Your task to perform on an android device: open device folders in google photos Image 0: 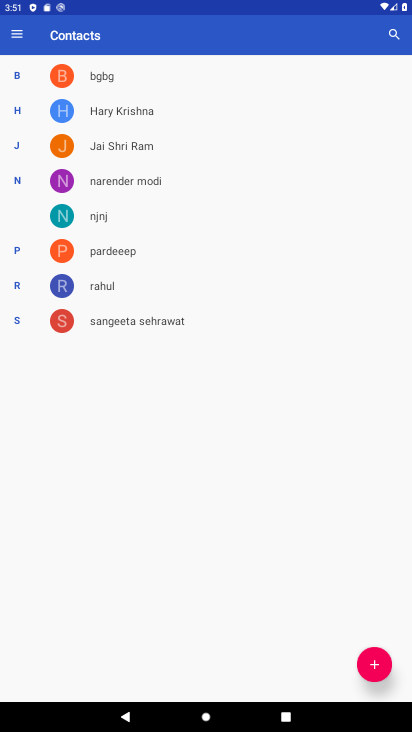
Step 0: press home button
Your task to perform on an android device: open device folders in google photos Image 1: 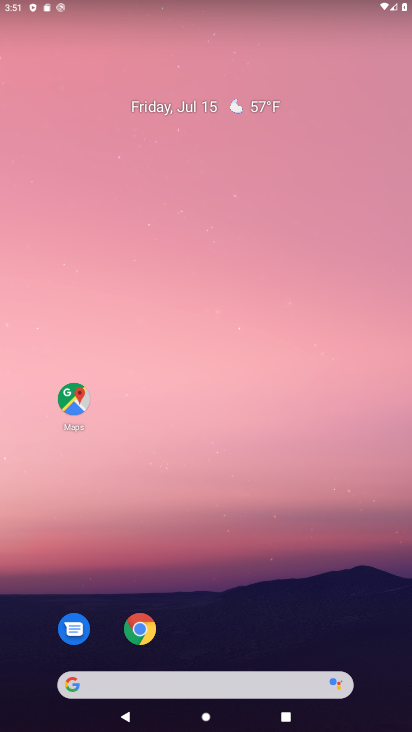
Step 1: drag from (272, 630) to (286, 50)
Your task to perform on an android device: open device folders in google photos Image 2: 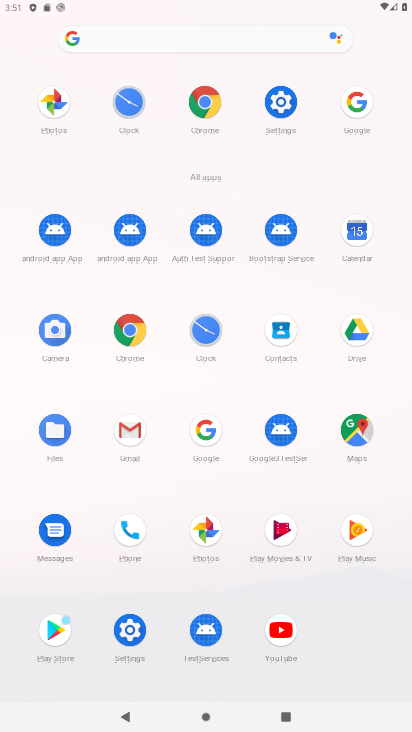
Step 2: click (213, 529)
Your task to perform on an android device: open device folders in google photos Image 3: 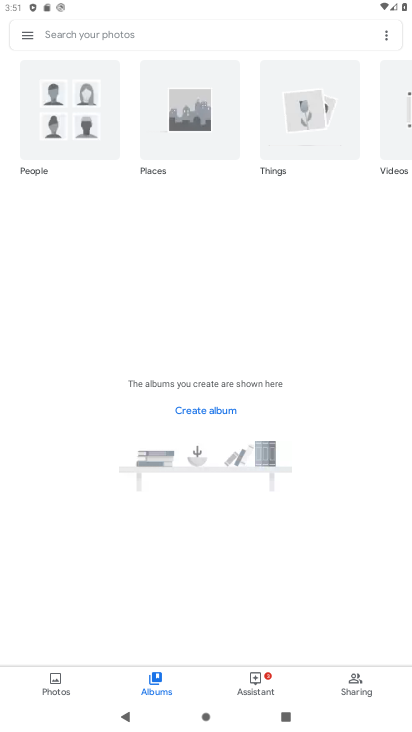
Step 3: click (263, 679)
Your task to perform on an android device: open device folders in google photos Image 4: 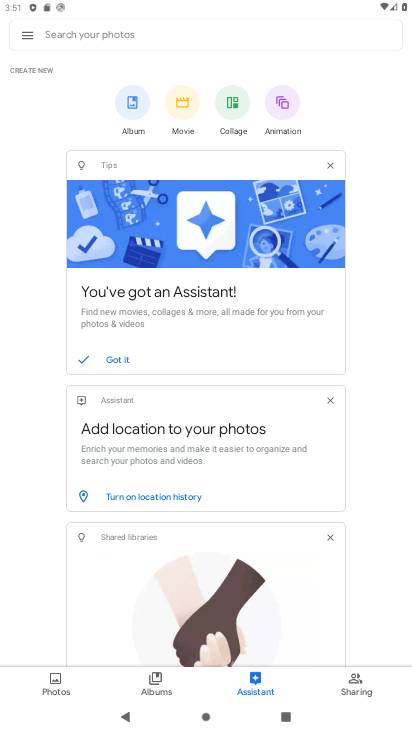
Step 4: task complete